Your task to perform on an android device: What's on Reddit today Image 0: 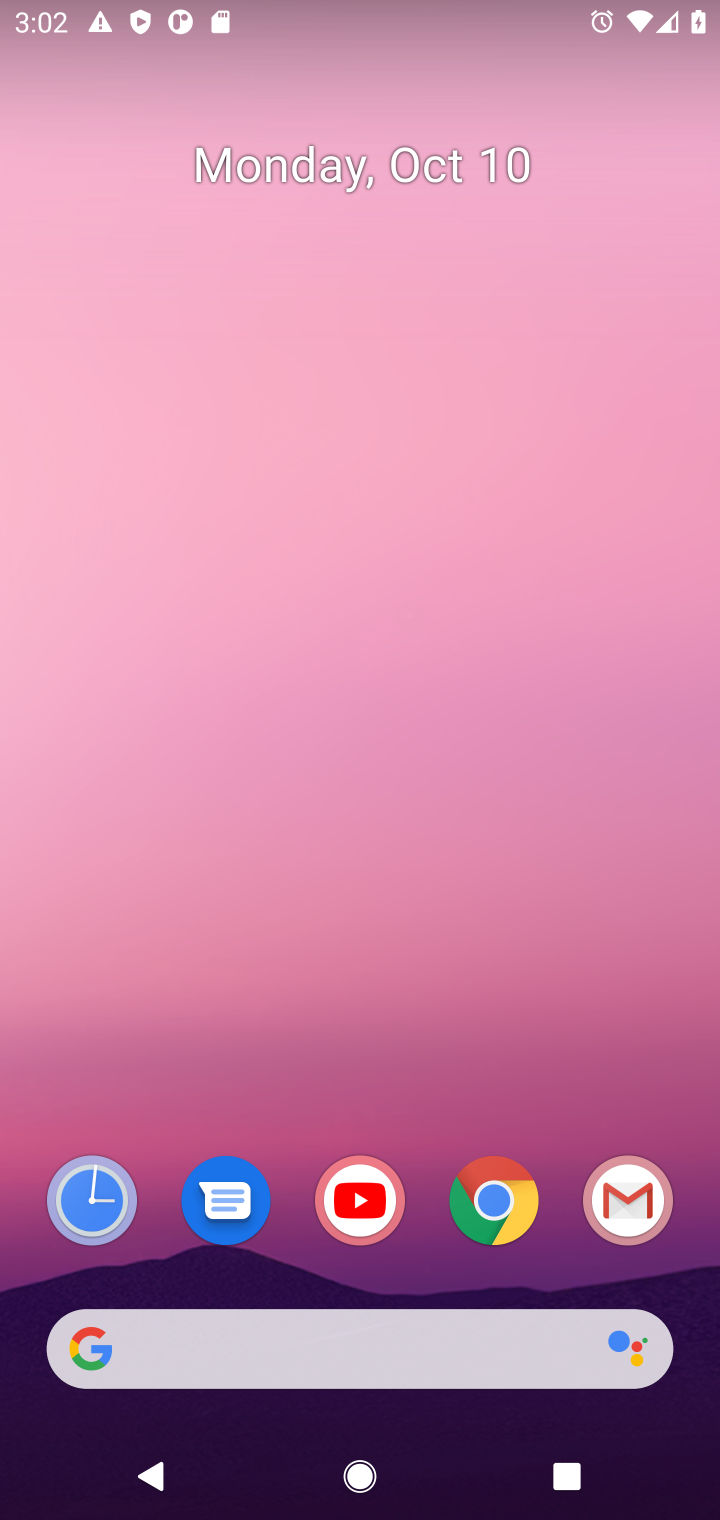
Step 0: click (500, 1224)
Your task to perform on an android device: What's on Reddit today Image 1: 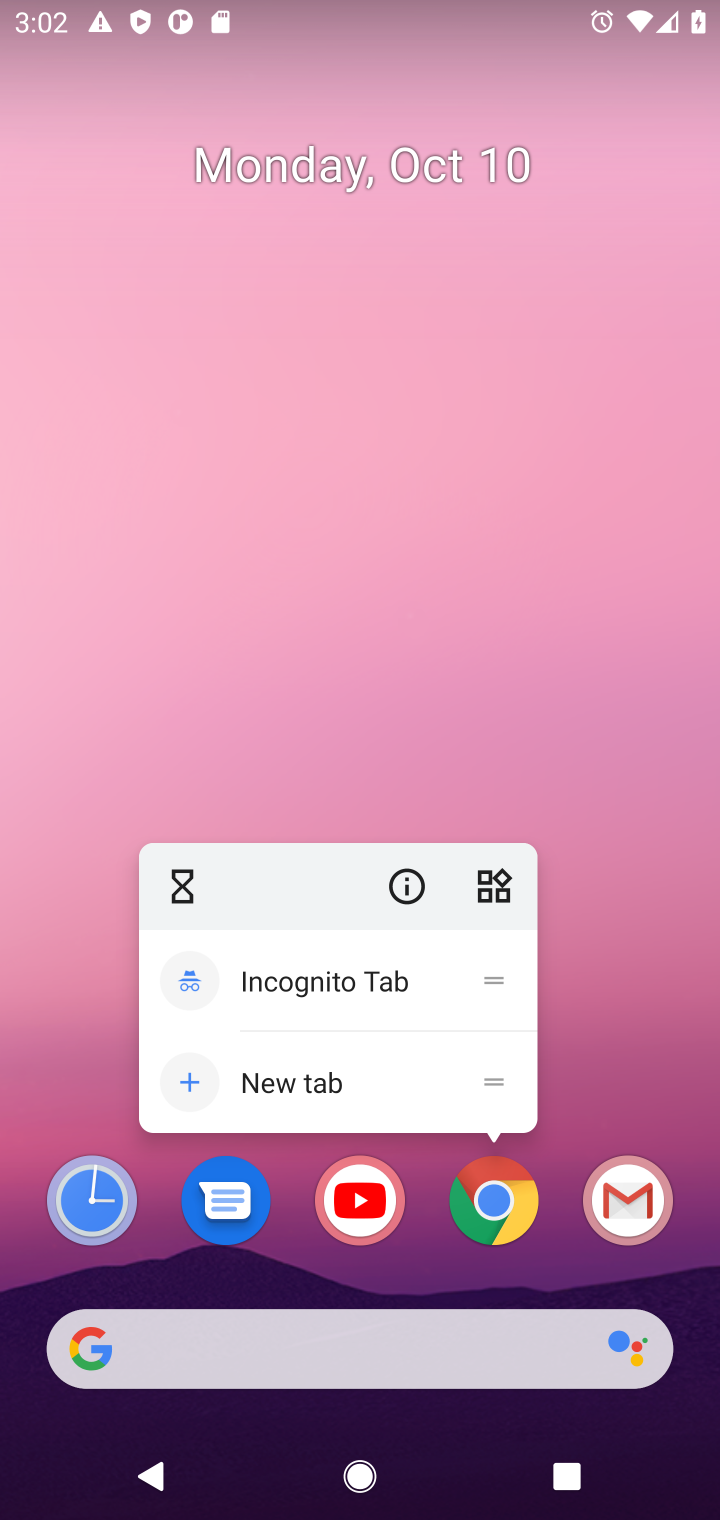
Step 1: click (512, 1201)
Your task to perform on an android device: What's on Reddit today Image 2: 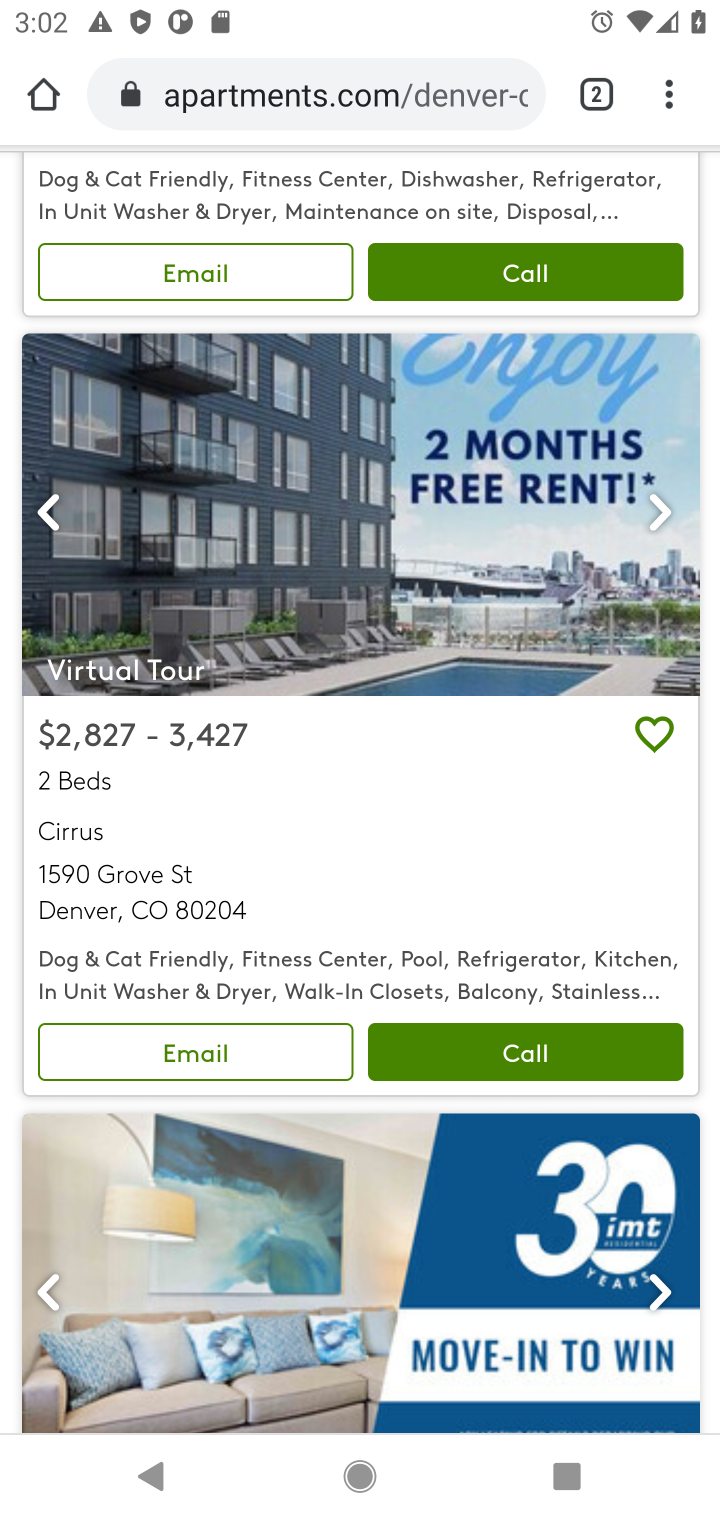
Step 2: click (317, 97)
Your task to perform on an android device: What's on Reddit today Image 3: 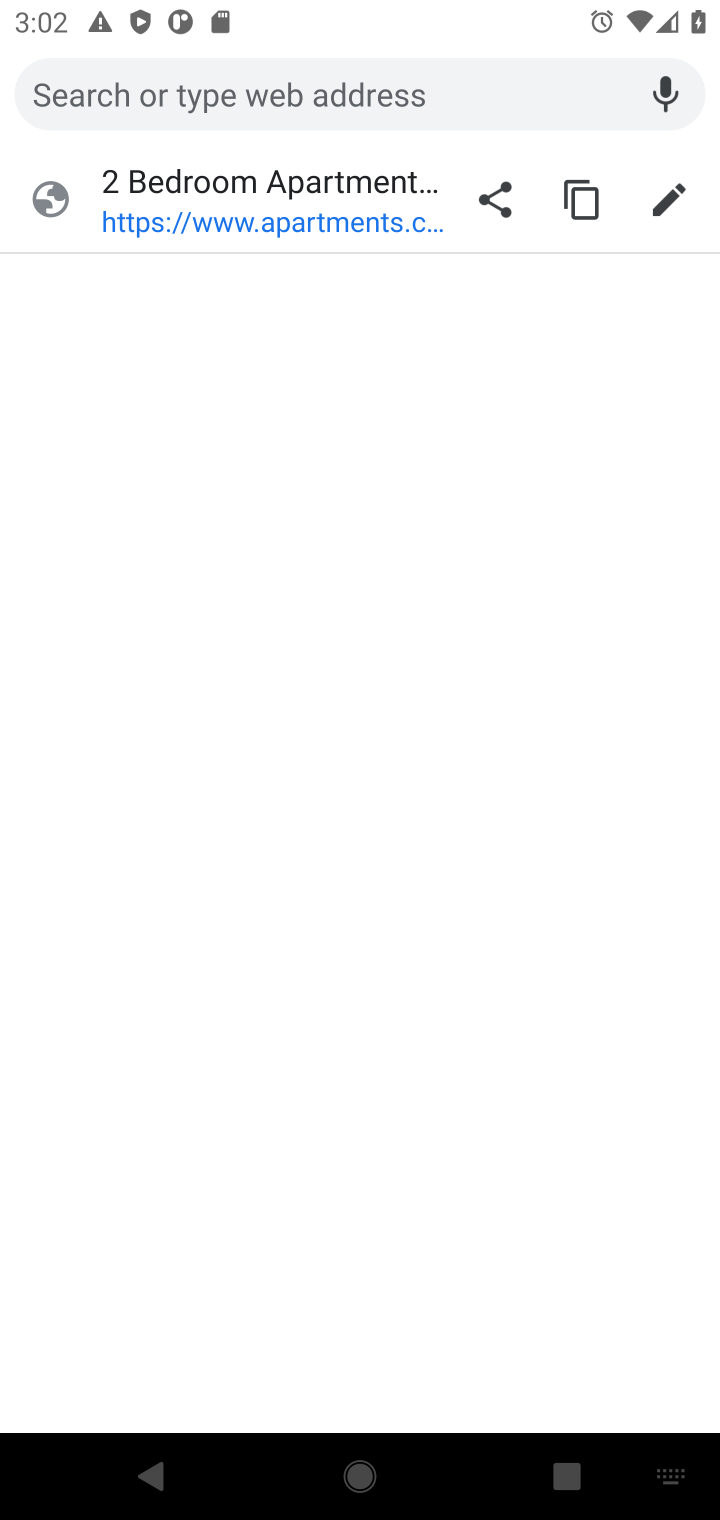
Step 3: type "What's on Reddit today"
Your task to perform on an android device: What's on Reddit today Image 4: 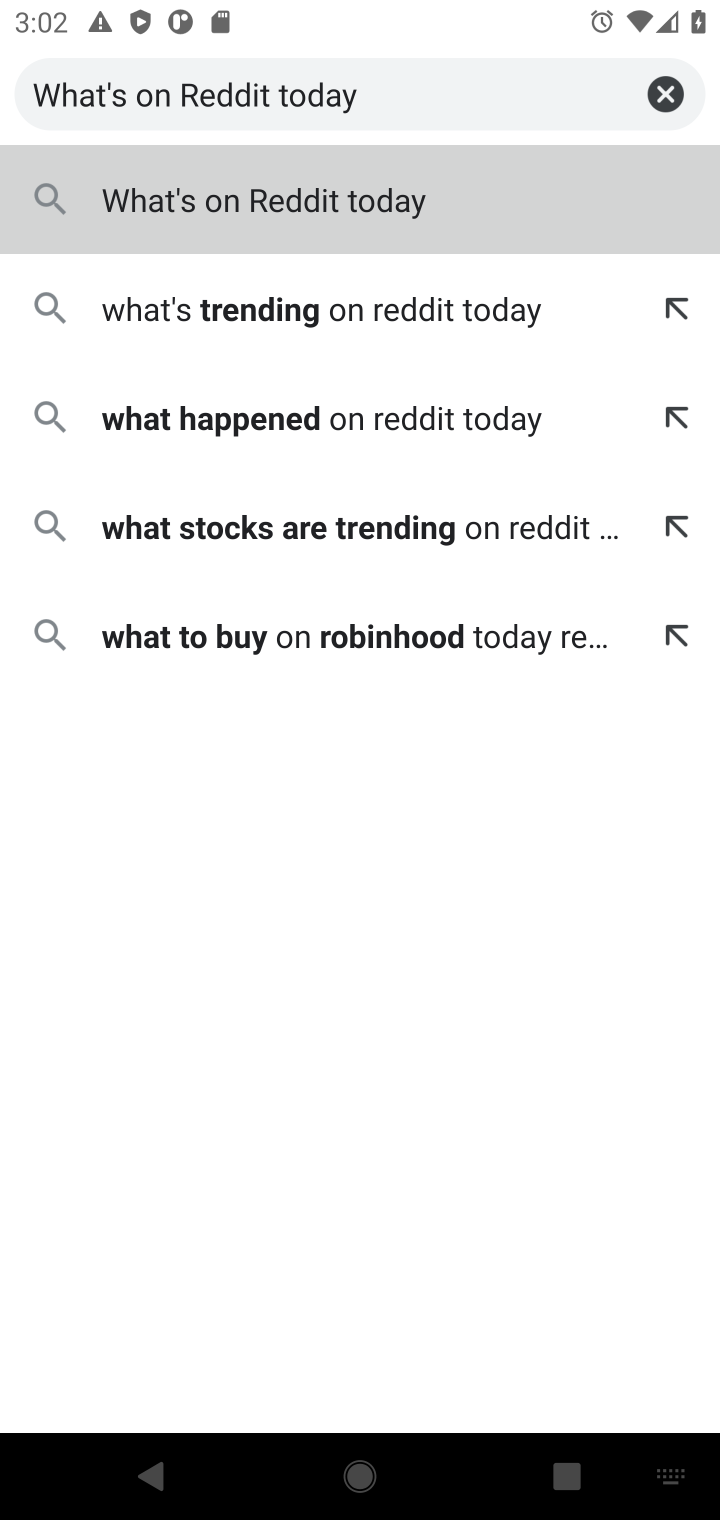
Step 4: type ""
Your task to perform on an android device: What's on Reddit today Image 5: 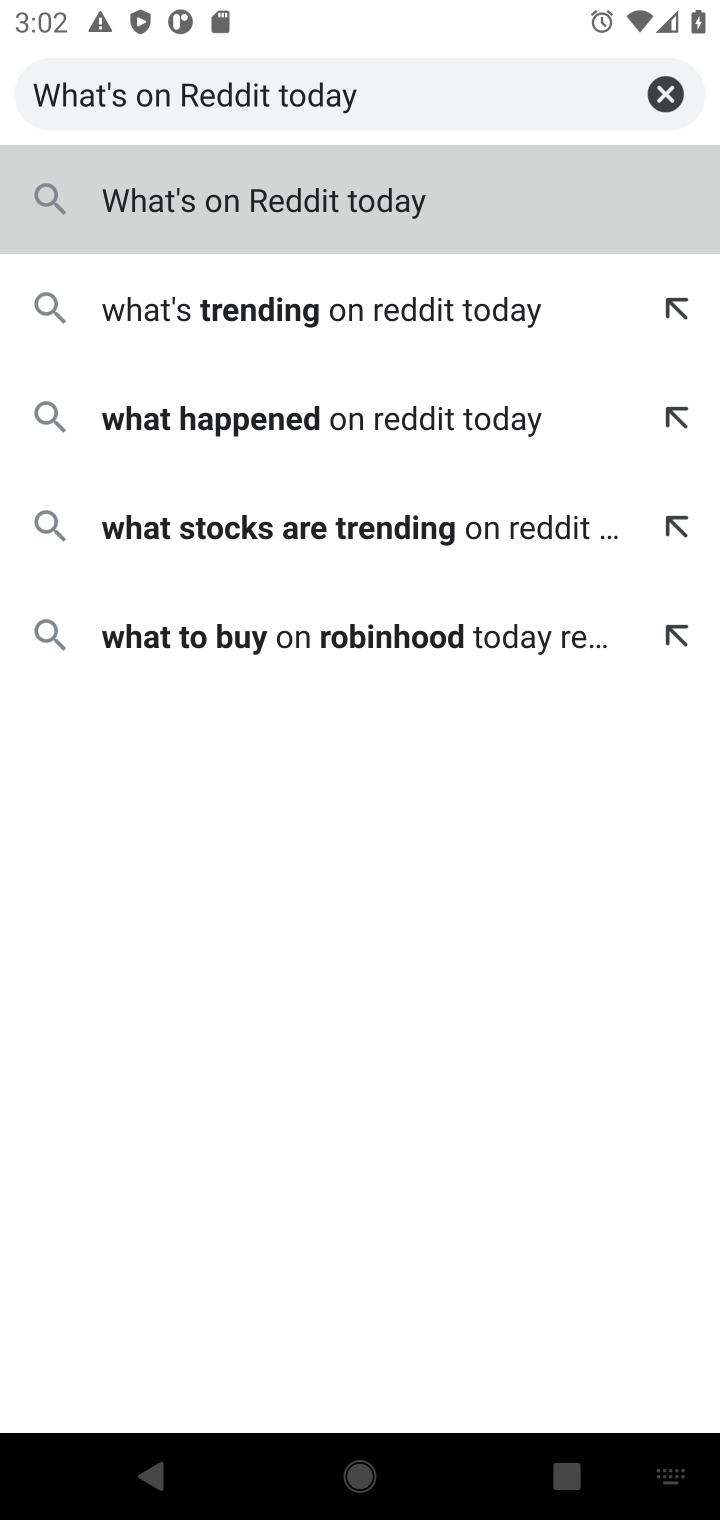
Step 5: click (232, 205)
Your task to perform on an android device: What's on Reddit today Image 6: 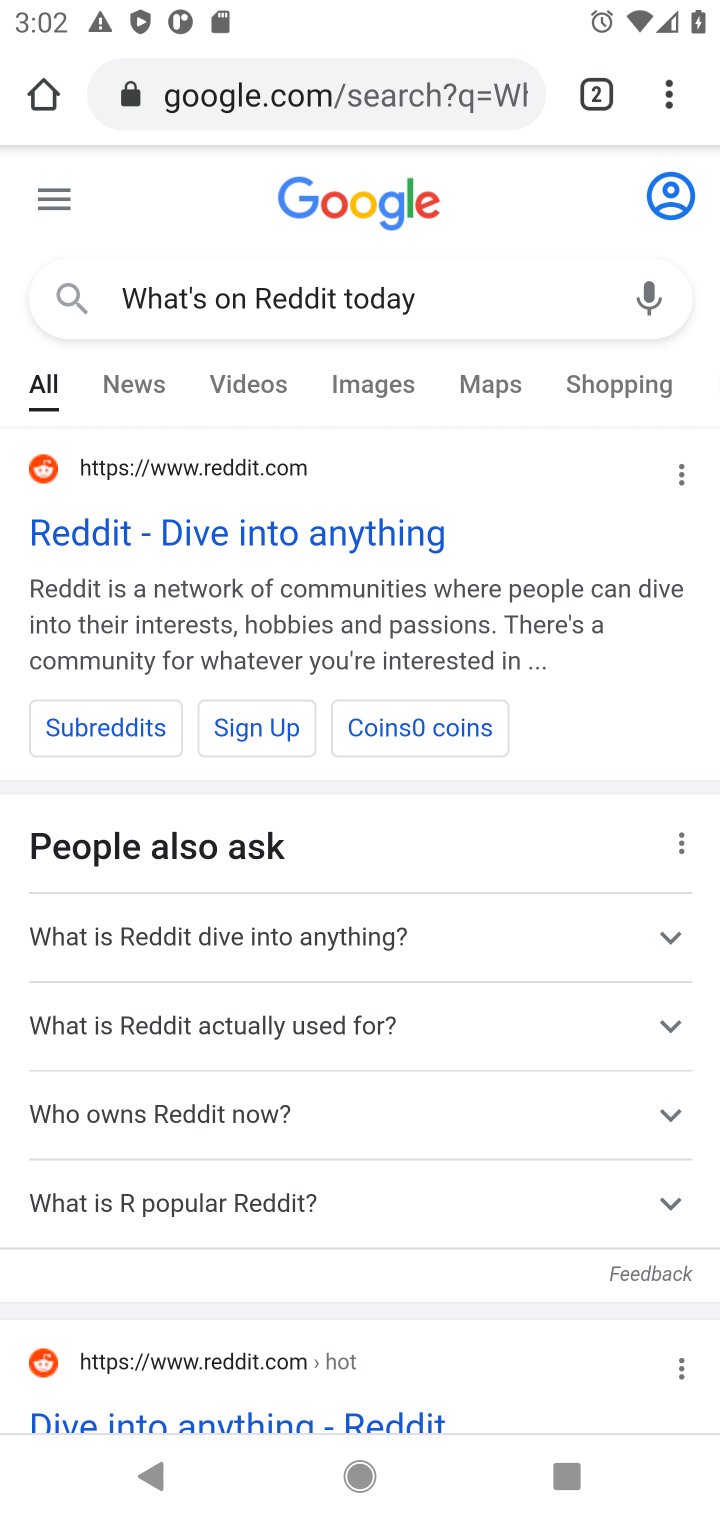
Step 6: click (296, 526)
Your task to perform on an android device: What's on Reddit today Image 7: 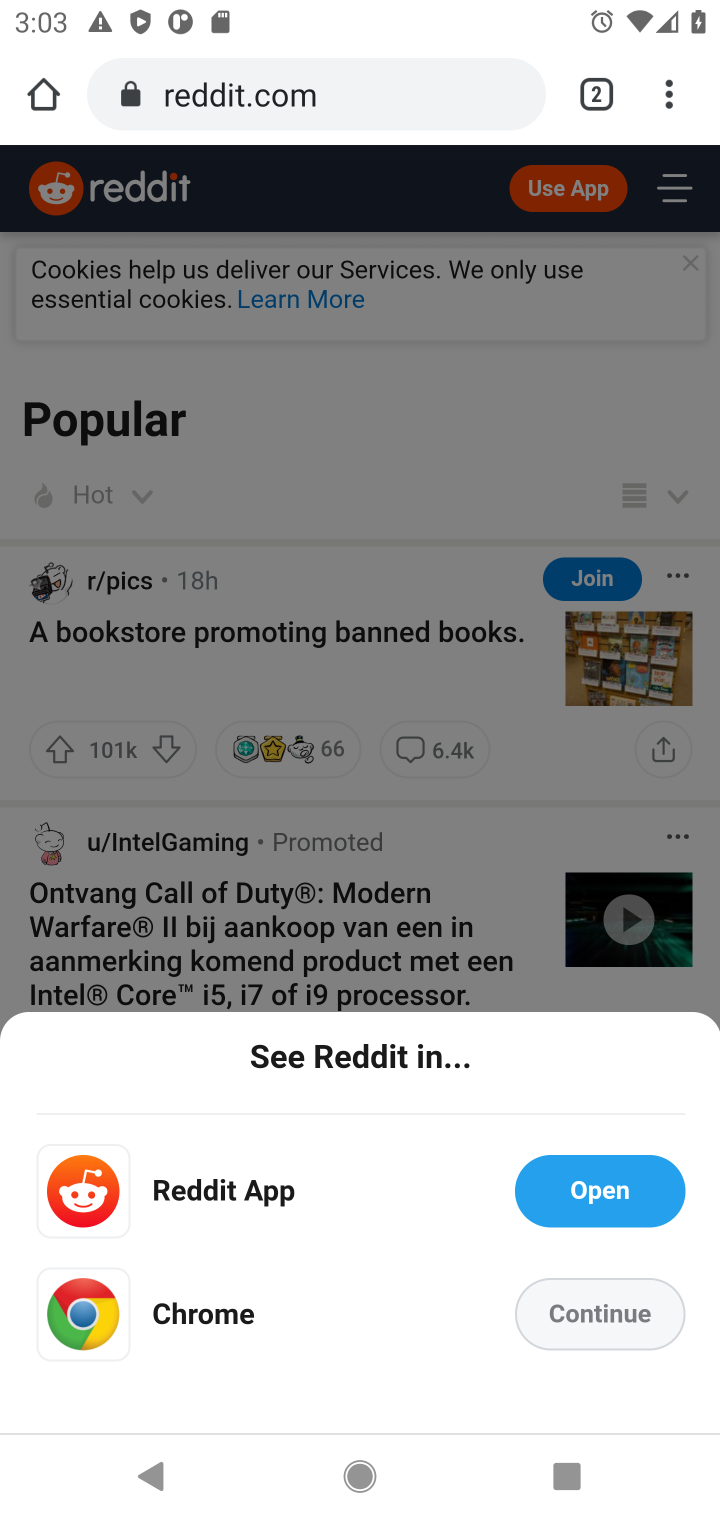
Step 7: click (608, 1335)
Your task to perform on an android device: What's on Reddit today Image 8: 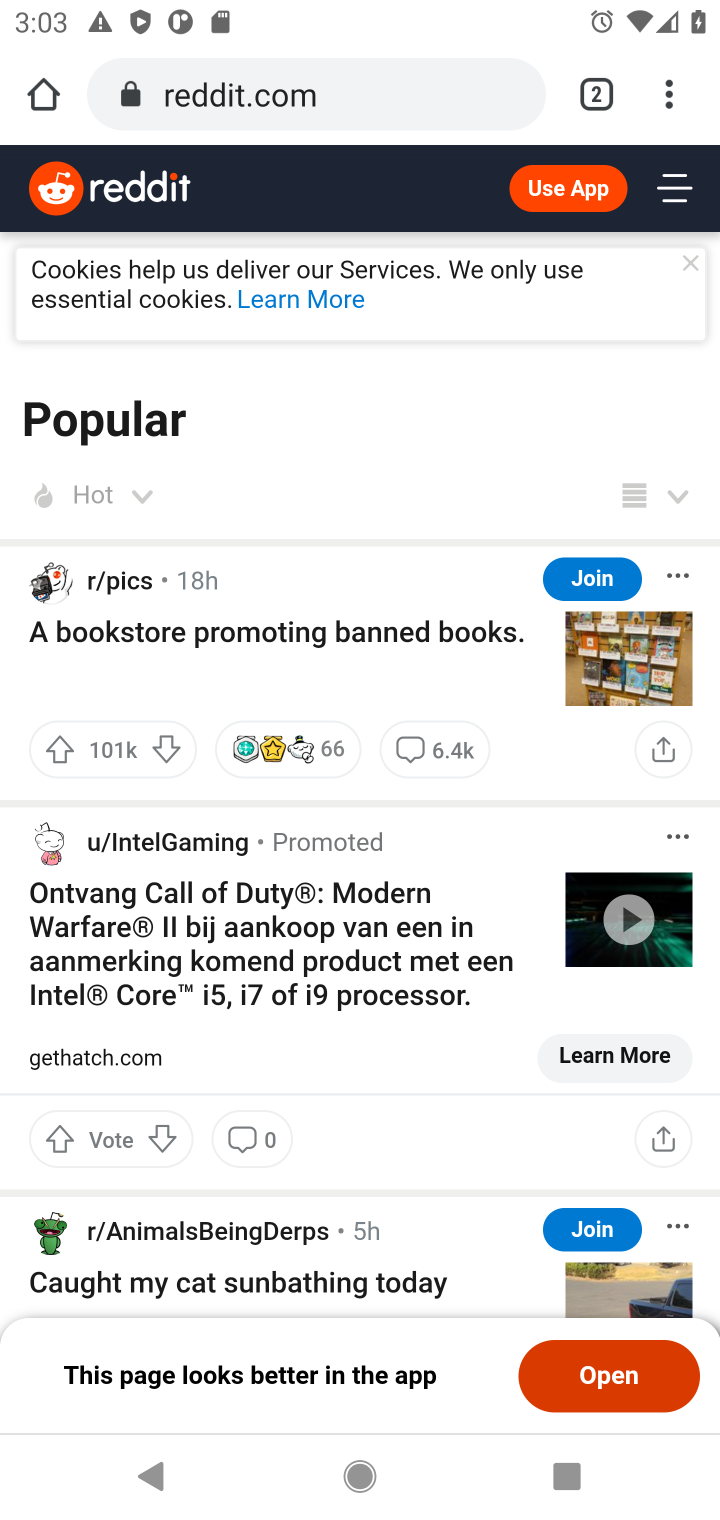
Step 8: task complete